Your task to perform on an android device: Open the calendar app, open the side menu, and click the "Day" option Image 0: 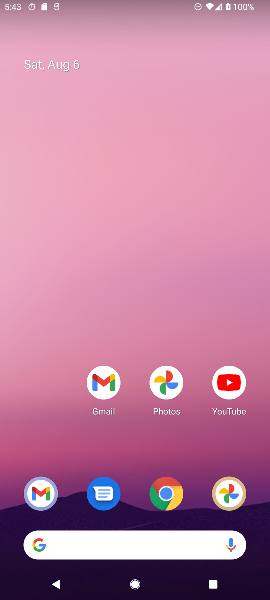
Step 0: click (96, 186)
Your task to perform on an android device: Open the calendar app, open the side menu, and click the "Day" option Image 1: 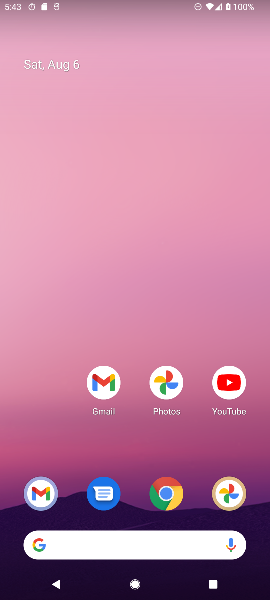
Step 1: drag from (194, 477) to (162, 112)
Your task to perform on an android device: Open the calendar app, open the side menu, and click the "Day" option Image 2: 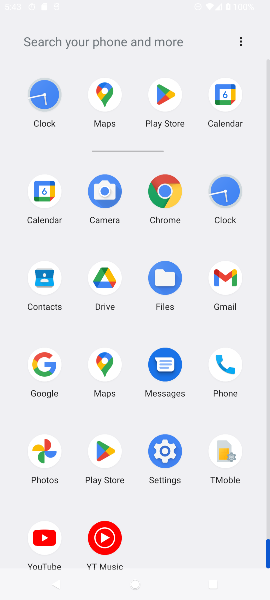
Step 2: drag from (141, 418) to (138, 58)
Your task to perform on an android device: Open the calendar app, open the side menu, and click the "Day" option Image 3: 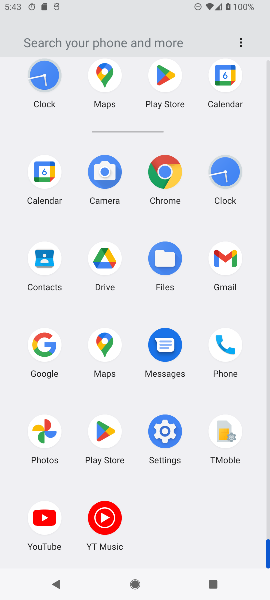
Step 3: click (44, 171)
Your task to perform on an android device: Open the calendar app, open the side menu, and click the "Day" option Image 4: 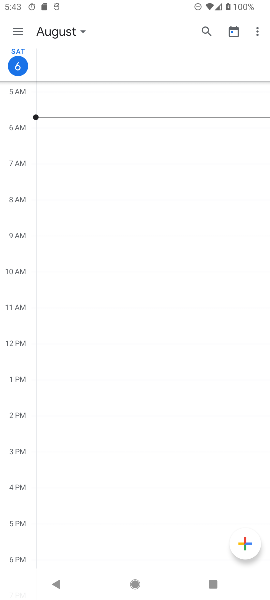
Step 4: click (18, 33)
Your task to perform on an android device: Open the calendar app, open the side menu, and click the "Day" option Image 5: 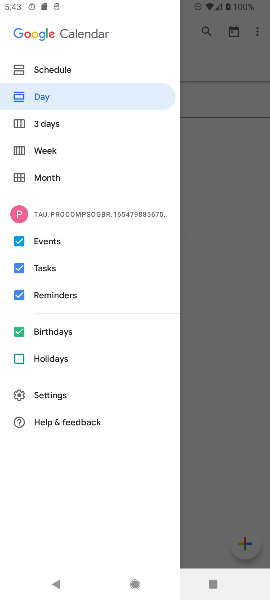
Step 5: click (43, 98)
Your task to perform on an android device: Open the calendar app, open the side menu, and click the "Day" option Image 6: 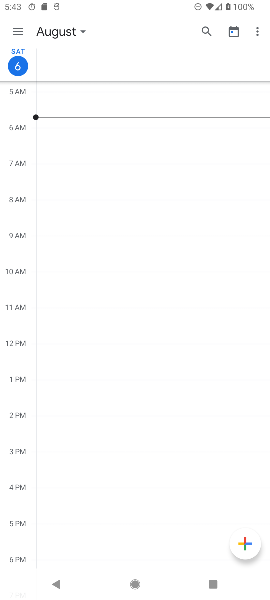
Step 6: task complete